Your task to perform on an android device: Go to network settings Image 0: 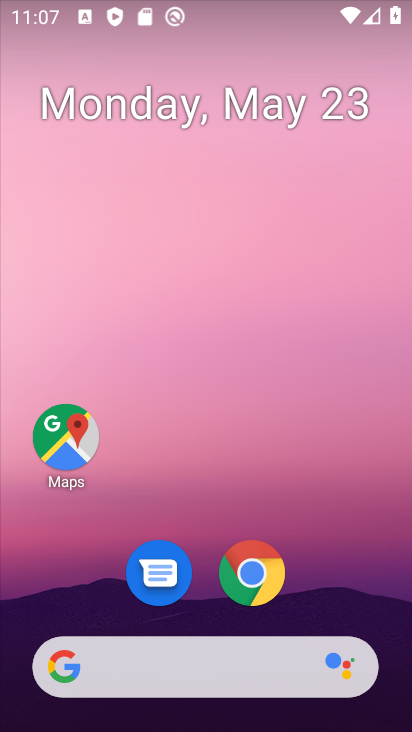
Step 0: drag from (220, 632) to (220, 200)
Your task to perform on an android device: Go to network settings Image 1: 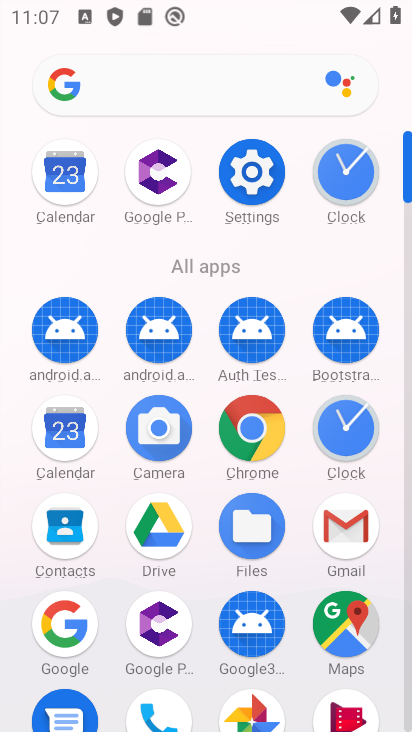
Step 1: click (241, 169)
Your task to perform on an android device: Go to network settings Image 2: 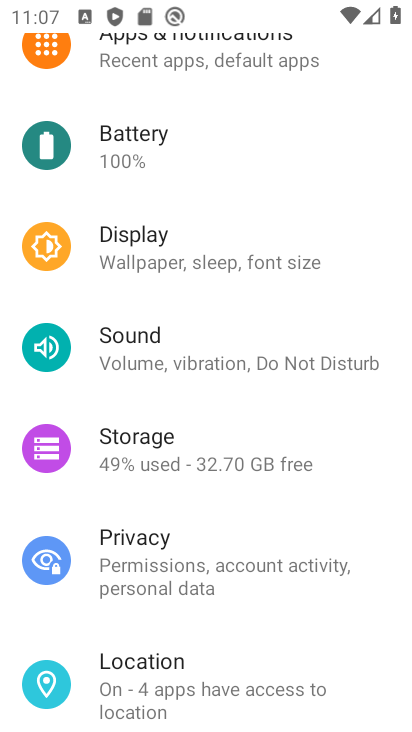
Step 2: drag from (246, 147) to (270, 587)
Your task to perform on an android device: Go to network settings Image 3: 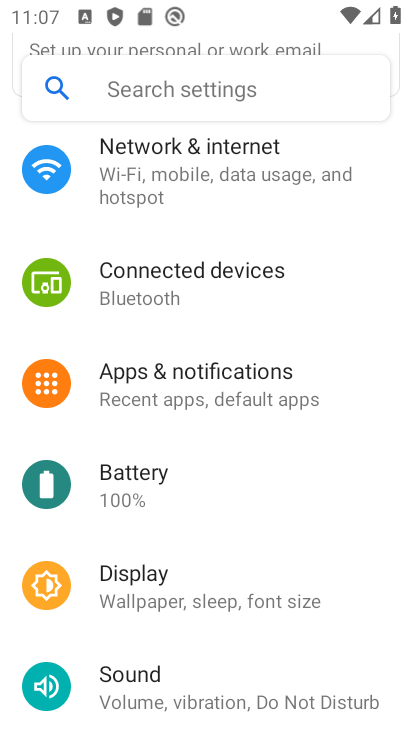
Step 3: click (222, 174)
Your task to perform on an android device: Go to network settings Image 4: 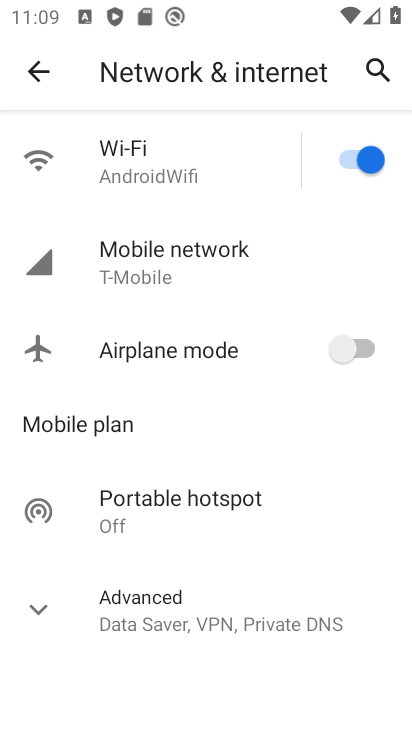
Step 4: click (170, 609)
Your task to perform on an android device: Go to network settings Image 5: 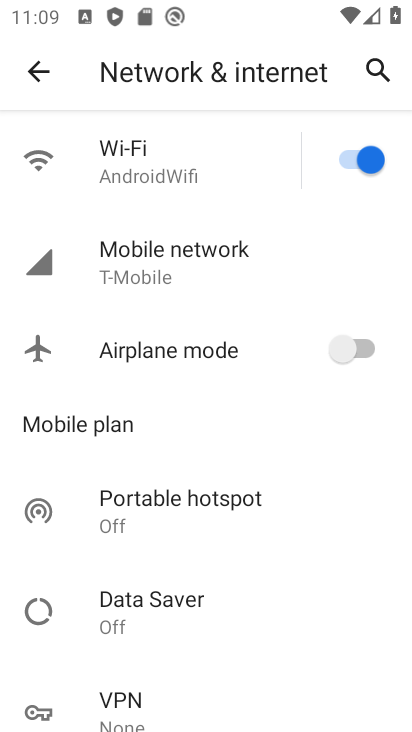
Step 5: task complete